Your task to perform on an android device: add a contact Image 0: 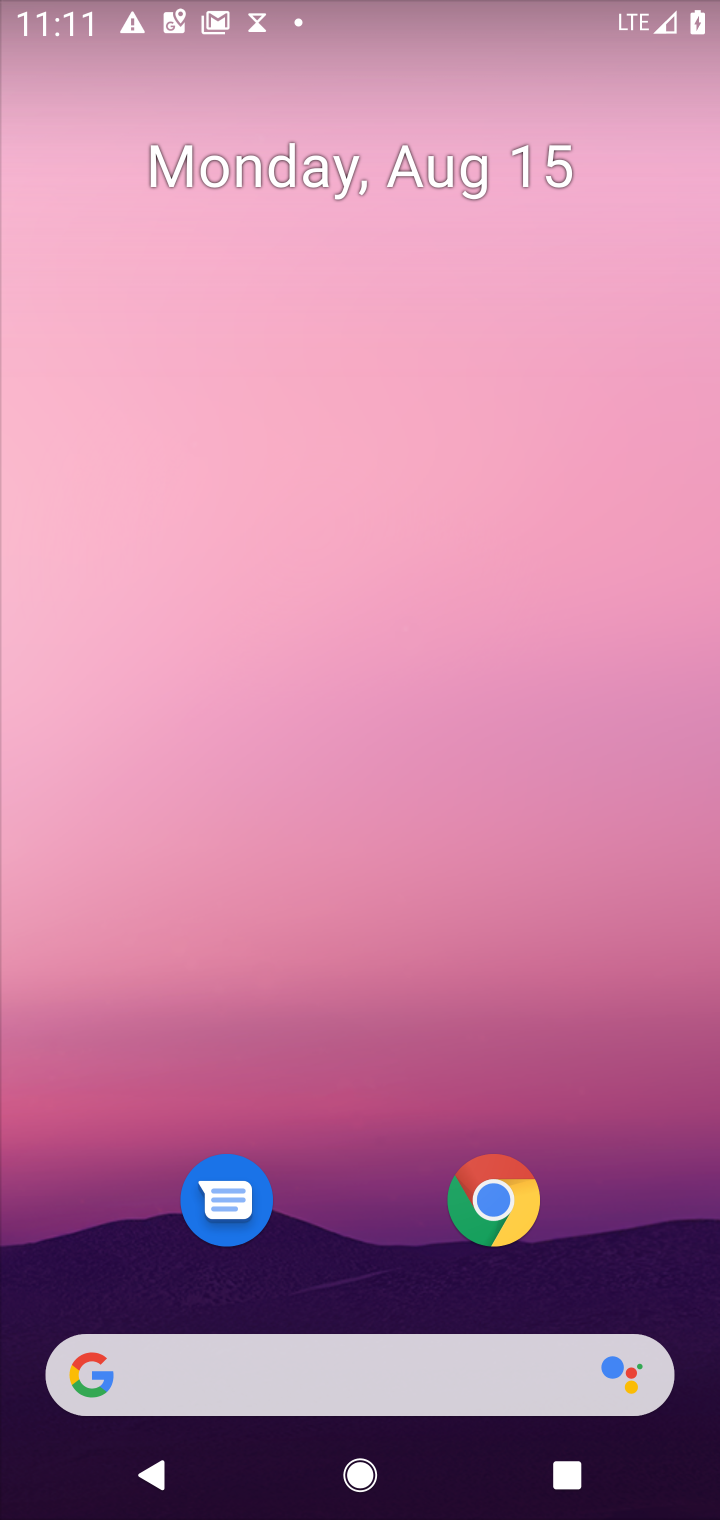
Step 0: click (649, 487)
Your task to perform on an android device: add a contact Image 1: 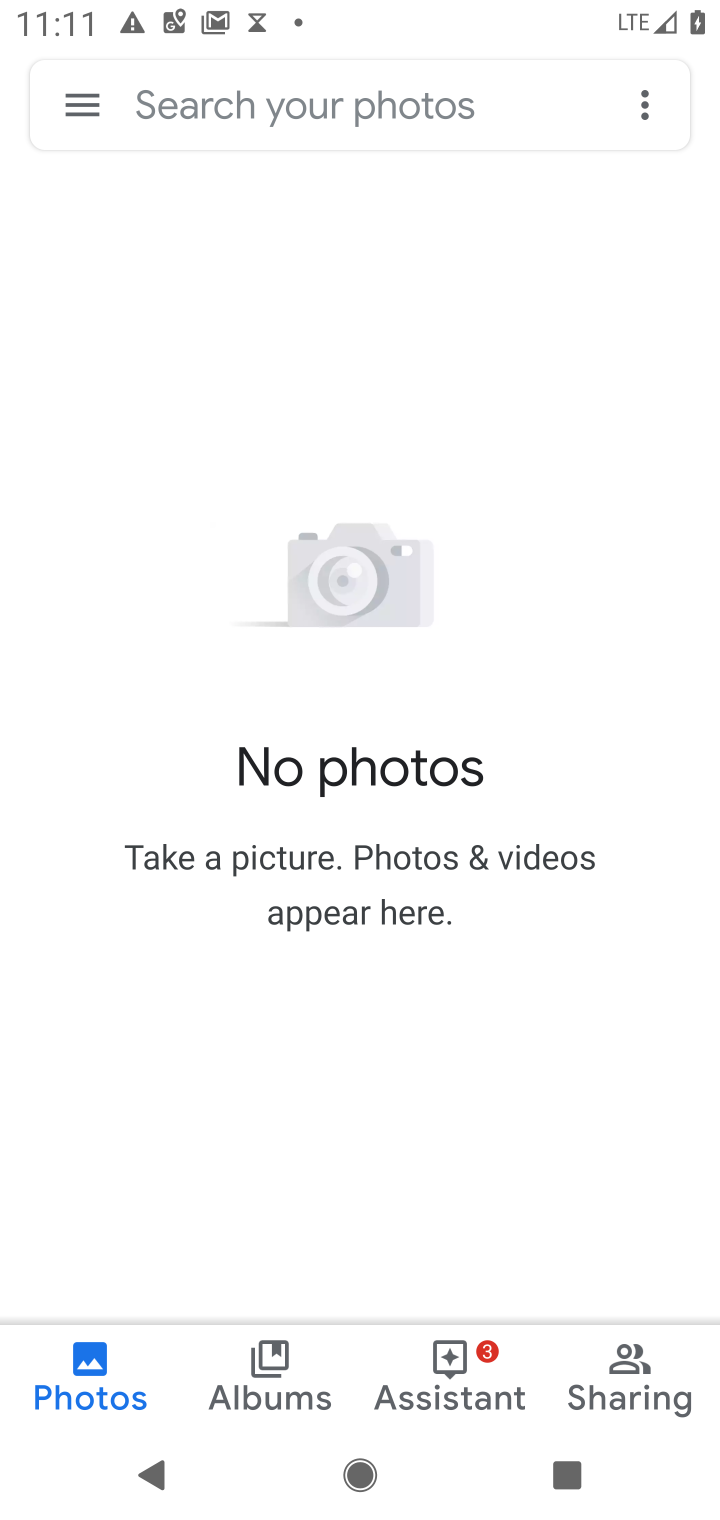
Step 1: press home button
Your task to perform on an android device: add a contact Image 2: 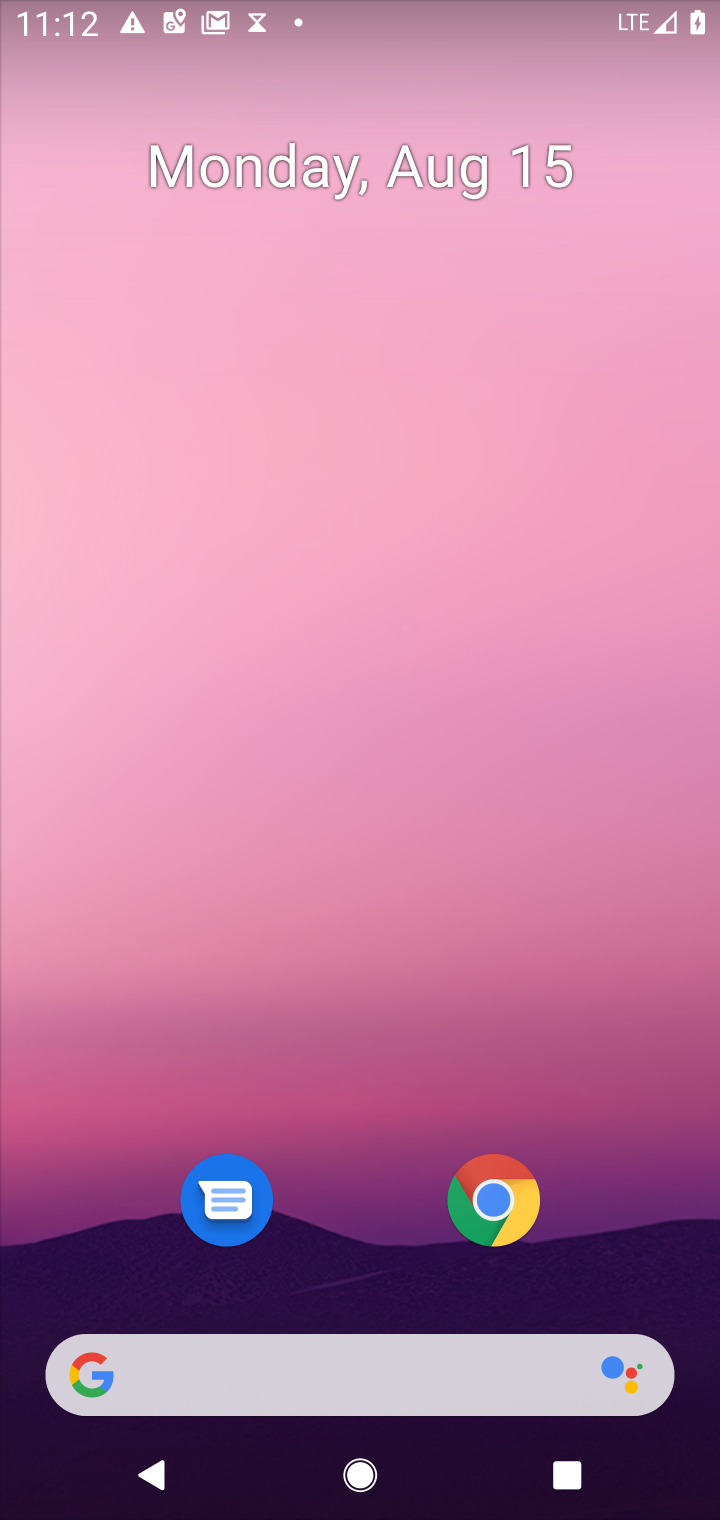
Step 2: drag from (329, 861) to (329, 446)
Your task to perform on an android device: add a contact Image 3: 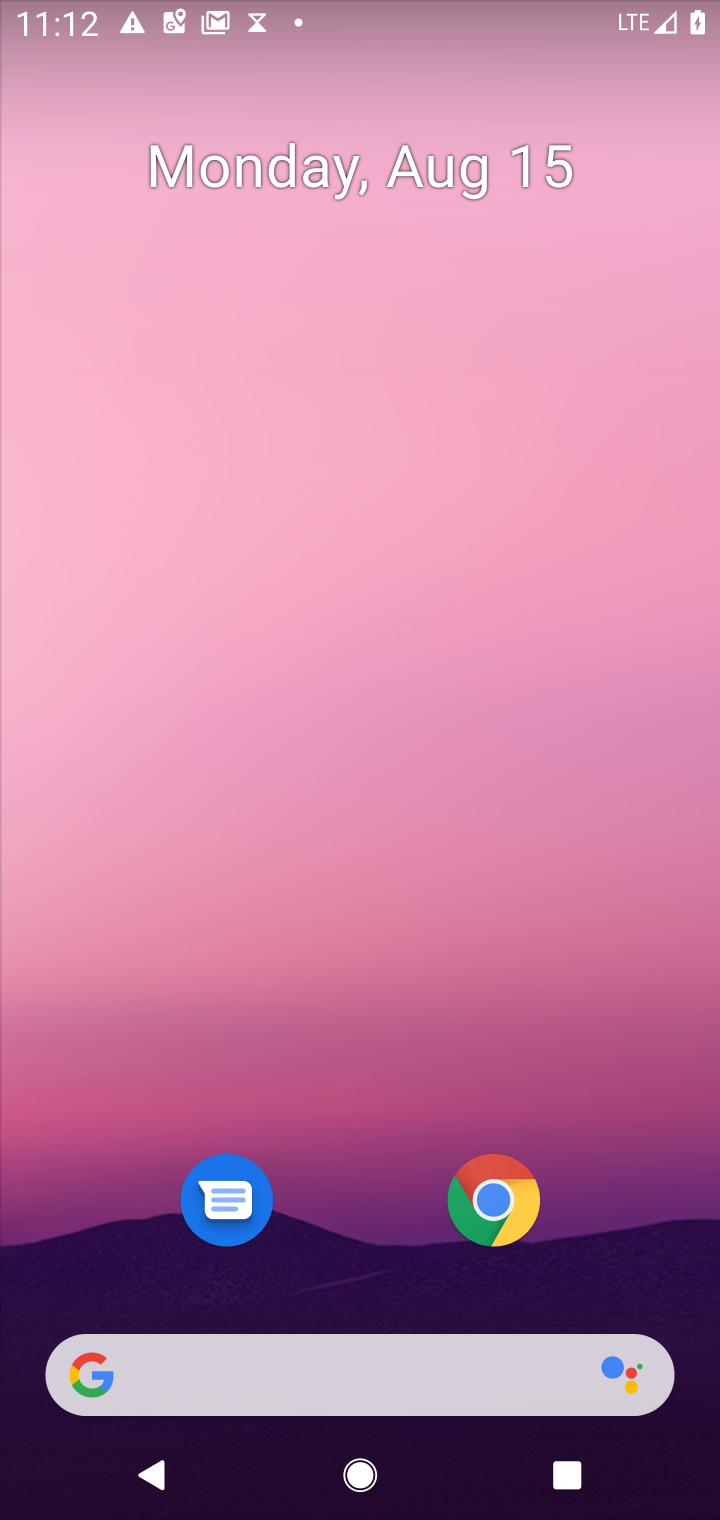
Step 3: drag from (369, 1219) to (322, 161)
Your task to perform on an android device: add a contact Image 4: 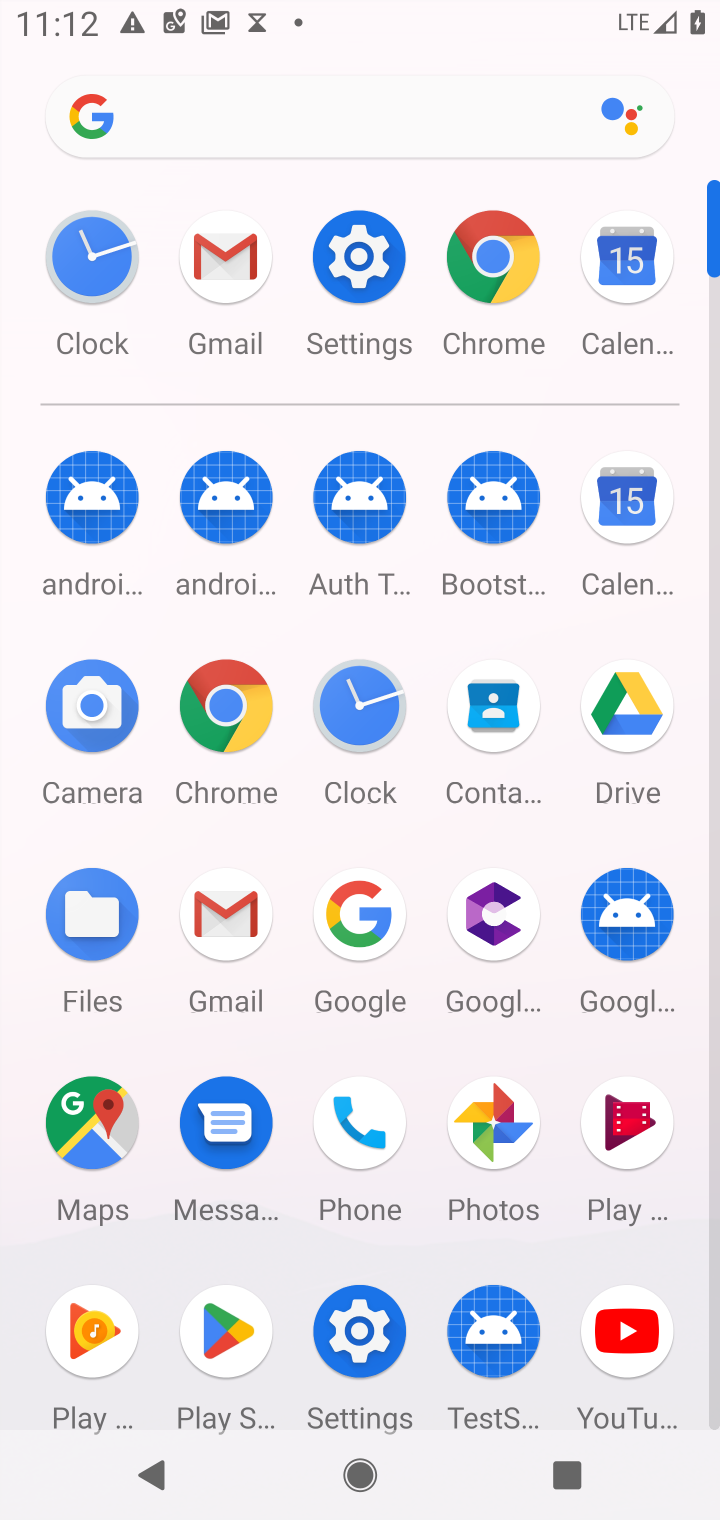
Step 4: click (500, 742)
Your task to perform on an android device: add a contact Image 5: 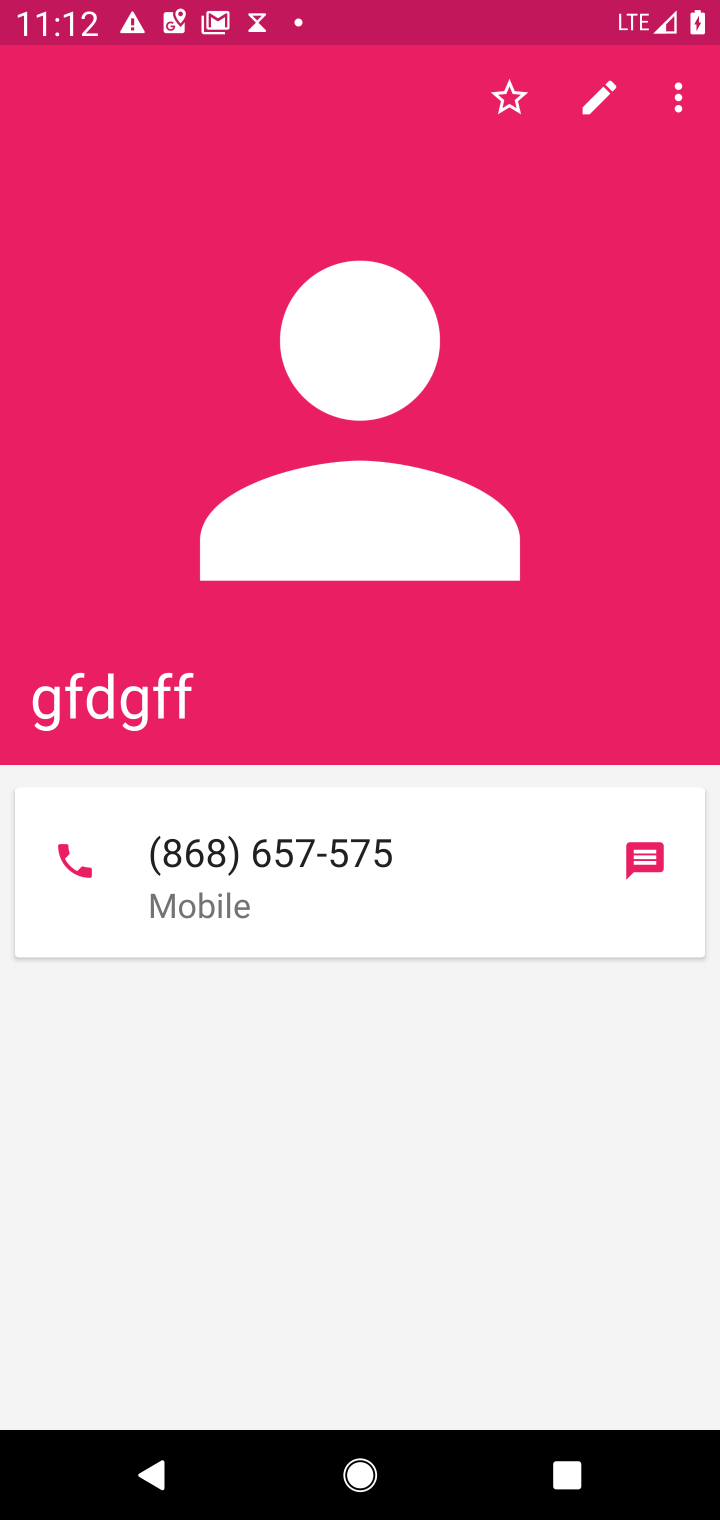
Step 5: press back button
Your task to perform on an android device: add a contact Image 6: 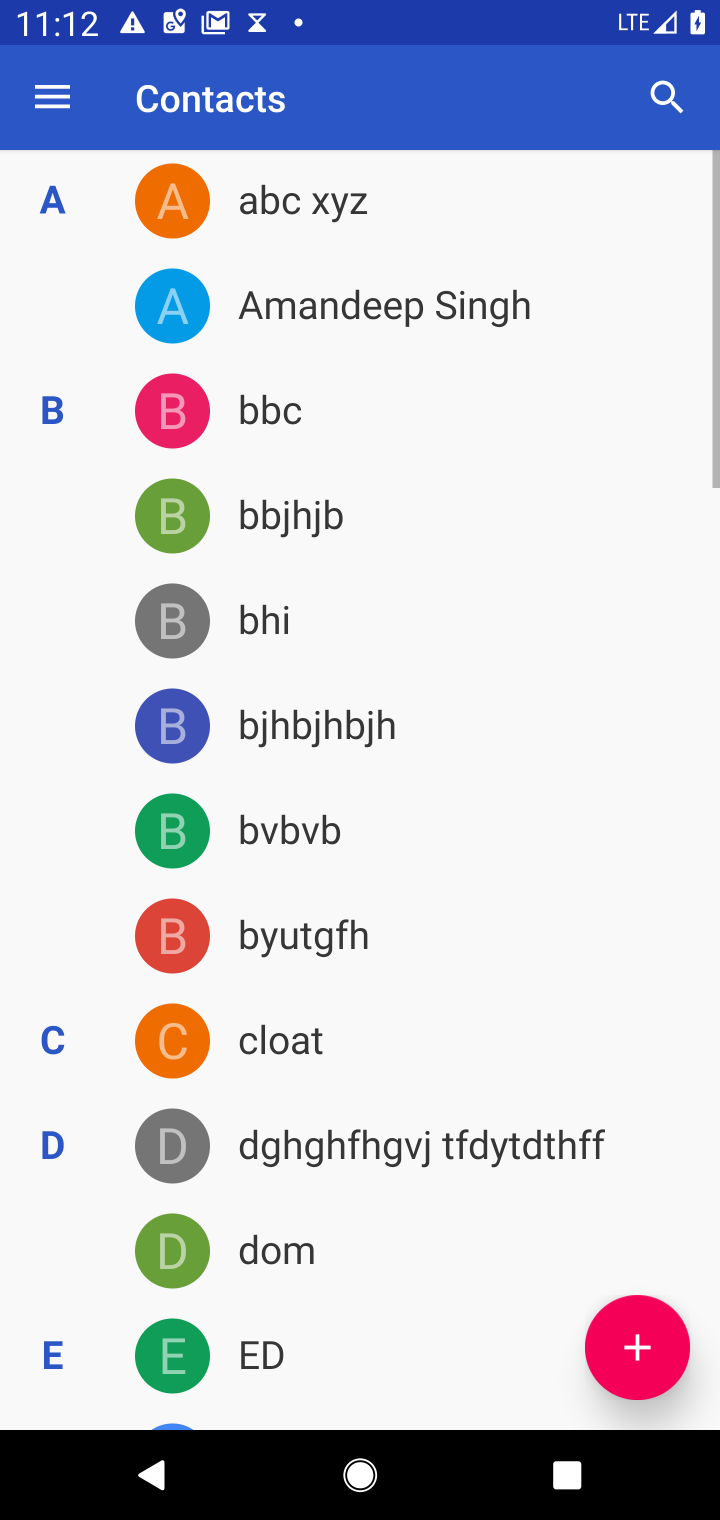
Step 6: click (646, 1339)
Your task to perform on an android device: add a contact Image 7: 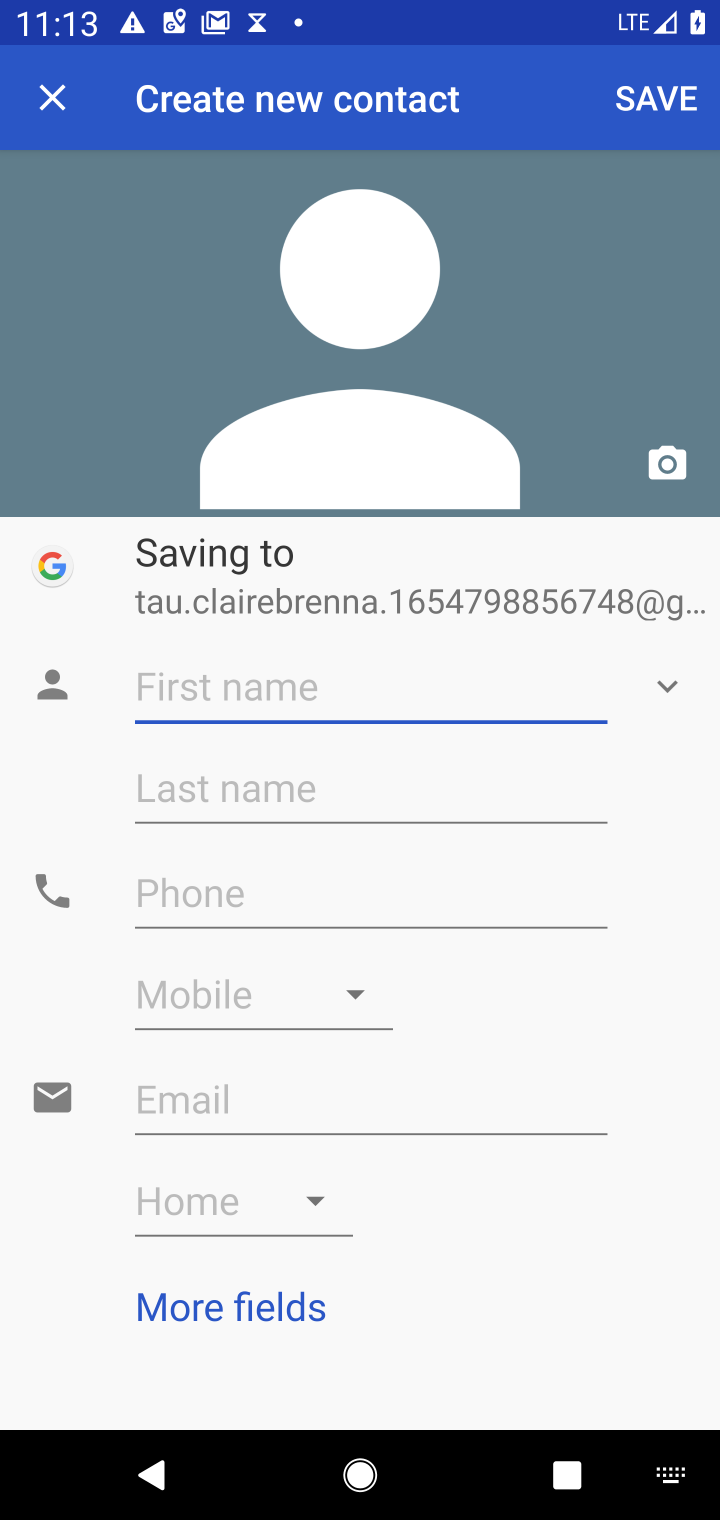
Step 7: type "ffhfh"
Your task to perform on an android device: add a contact Image 8: 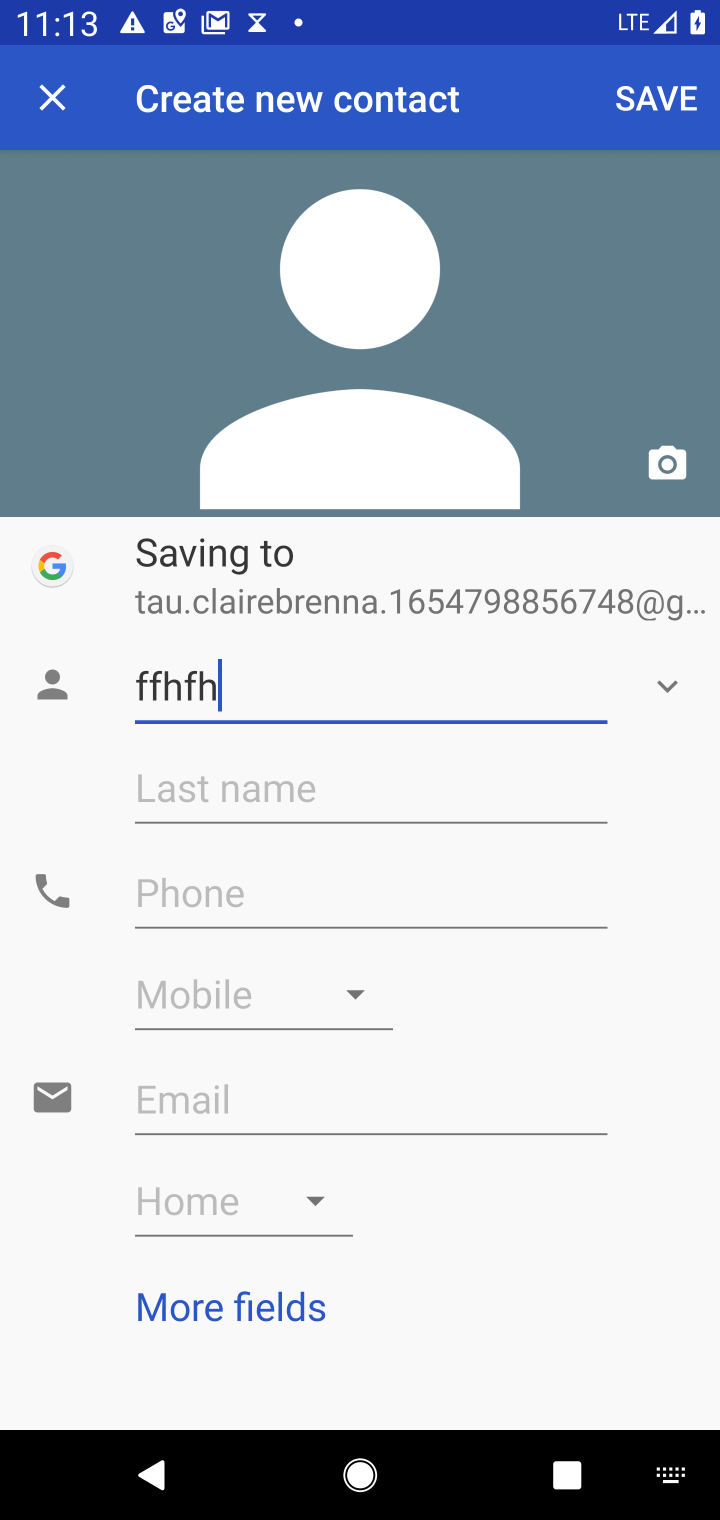
Step 8: type ""
Your task to perform on an android device: add a contact Image 9: 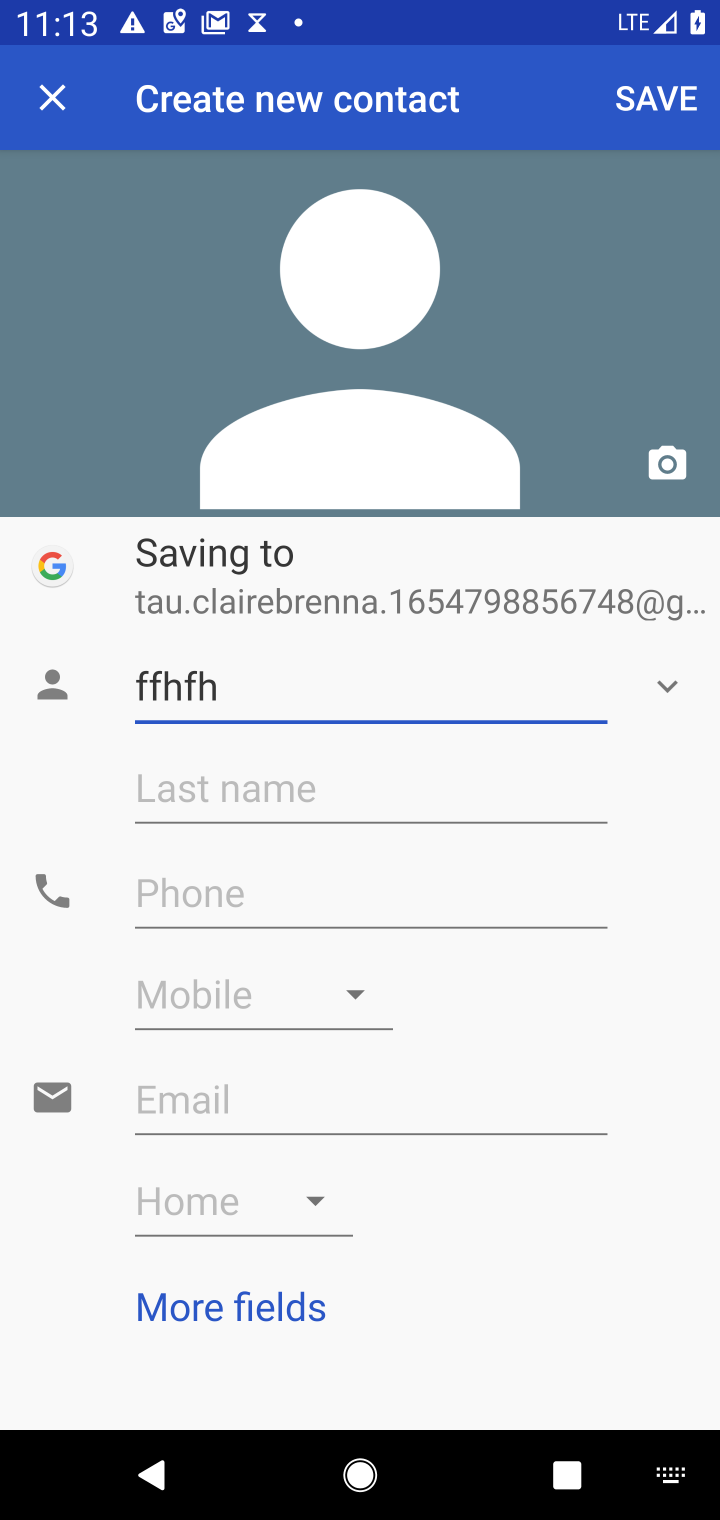
Step 9: click (280, 877)
Your task to perform on an android device: add a contact Image 10: 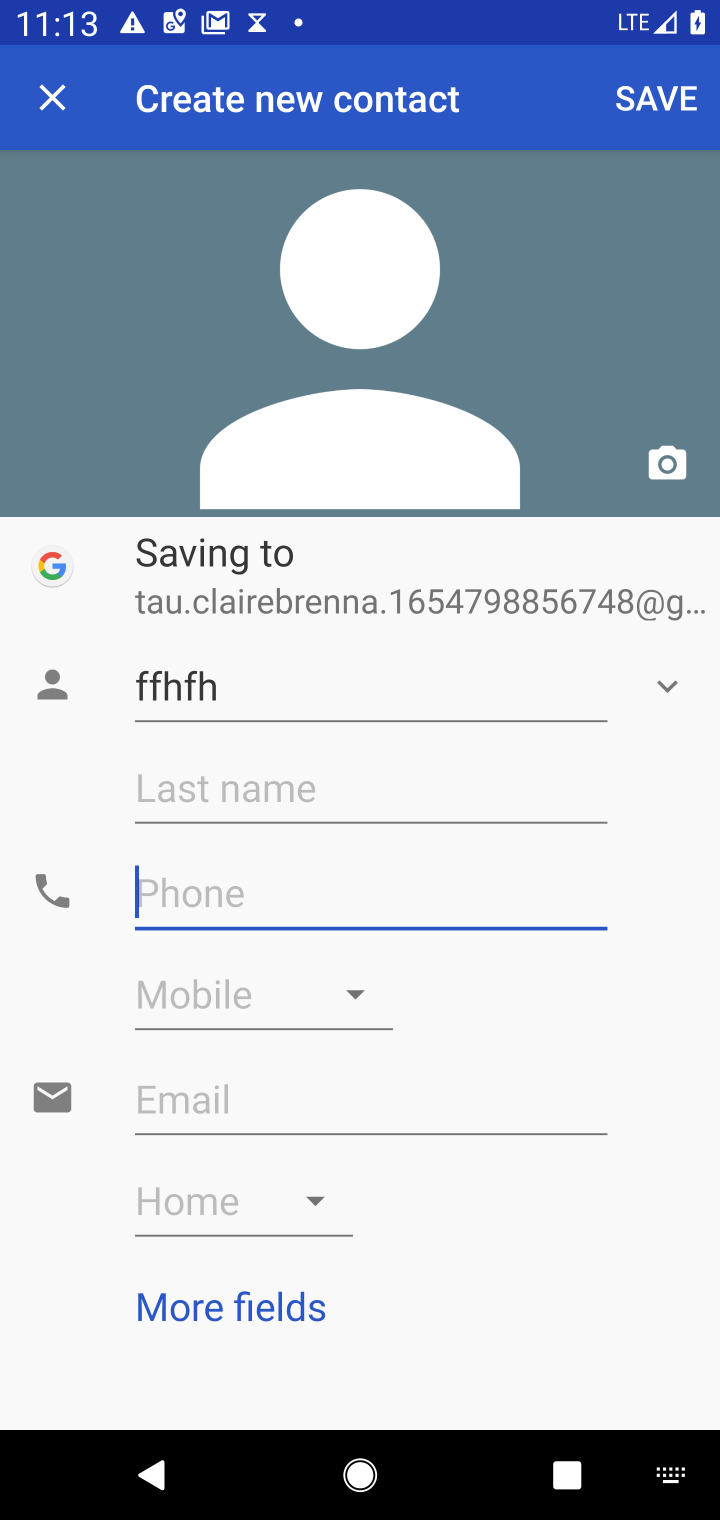
Step 10: type "56457546447"
Your task to perform on an android device: add a contact Image 11: 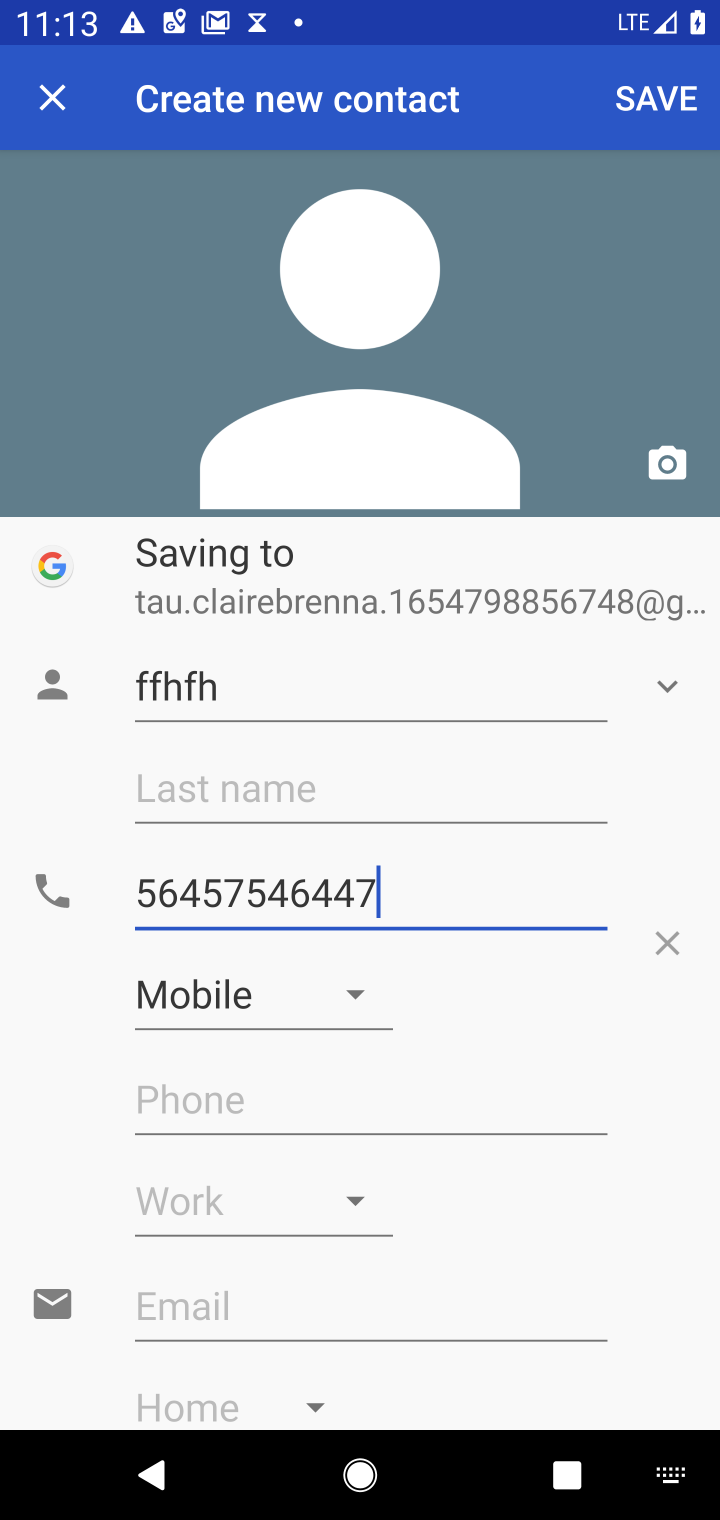
Step 11: type ""
Your task to perform on an android device: add a contact Image 12: 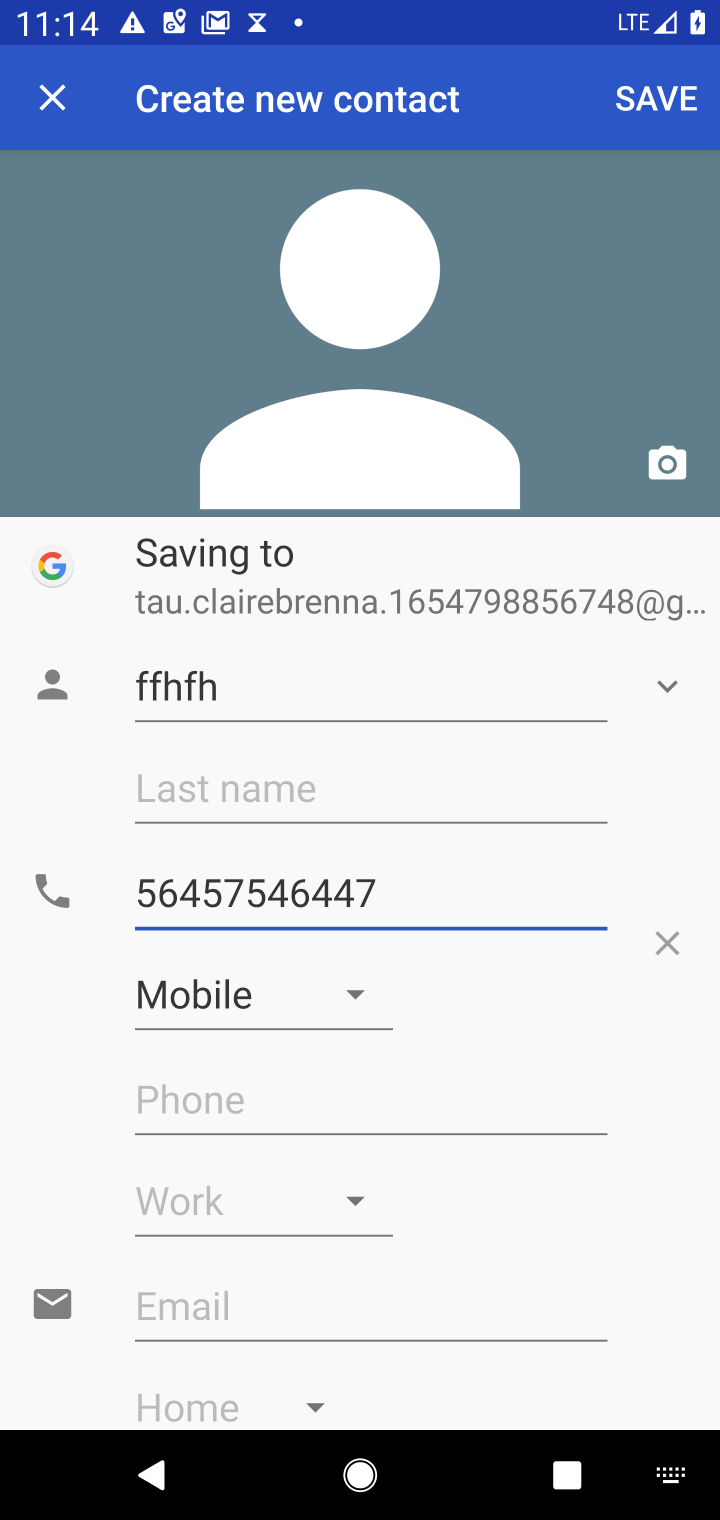
Step 12: click (619, 84)
Your task to perform on an android device: add a contact Image 13: 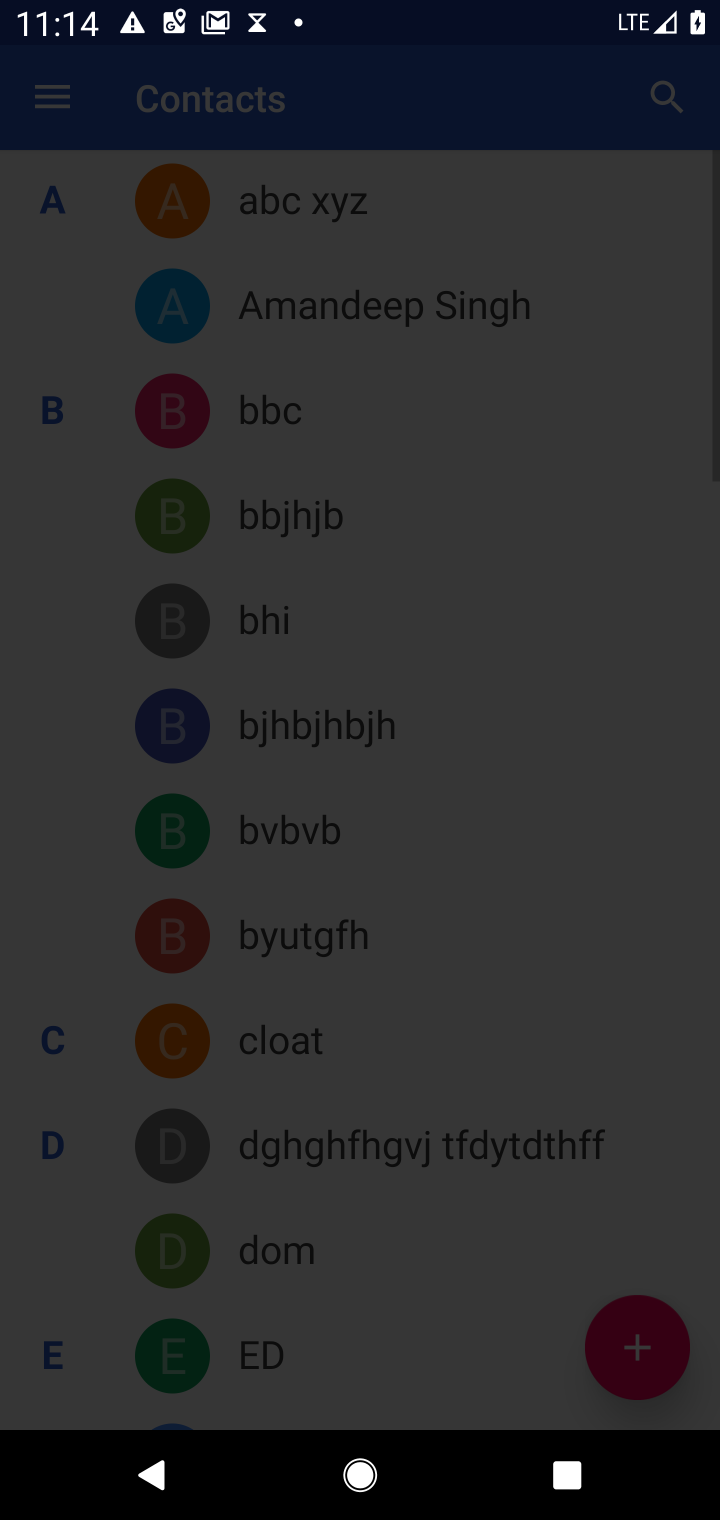
Step 13: task complete